Your task to perform on an android device: Open calendar and show me the second week of next month Image 0: 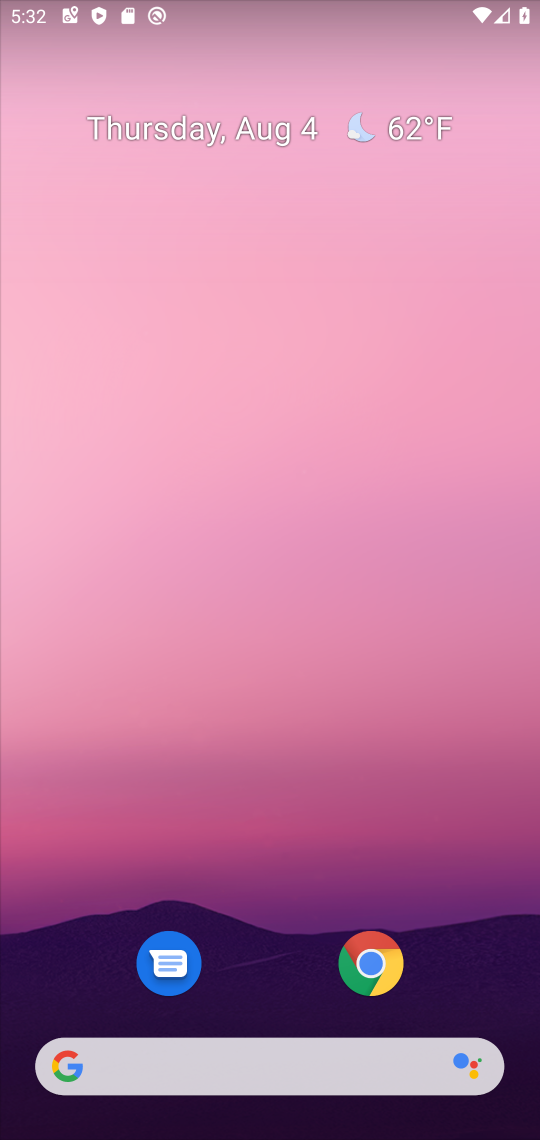
Step 0: drag from (259, 949) to (227, 114)
Your task to perform on an android device: Open calendar and show me the second week of next month Image 1: 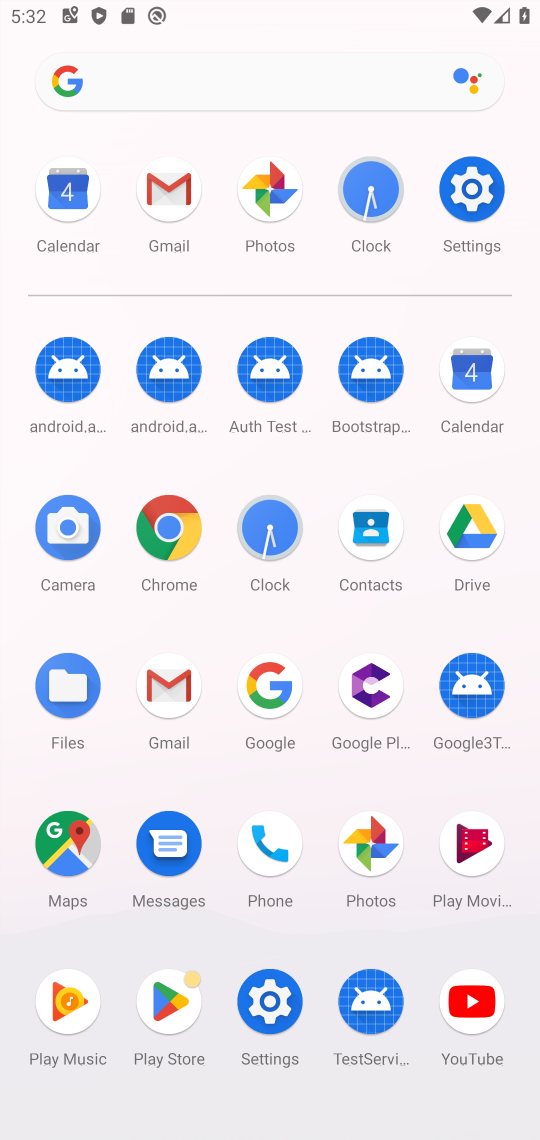
Step 1: click (472, 375)
Your task to perform on an android device: Open calendar and show me the second week of next month Image 2: 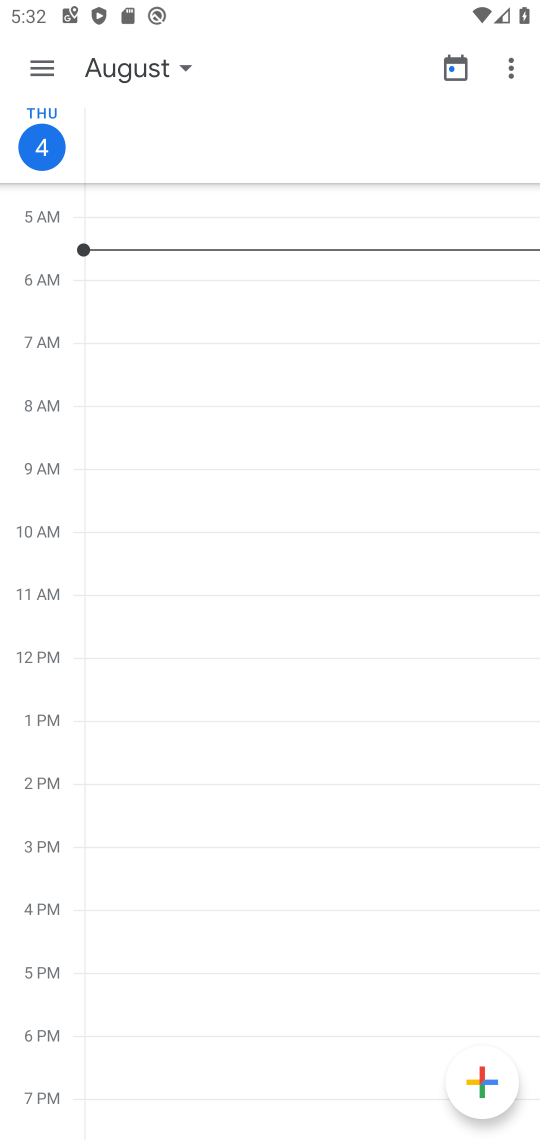
Step 2: click (42, 57)
Your task to perform on an android device: Open calendar and show me the second week of next month Image 3: 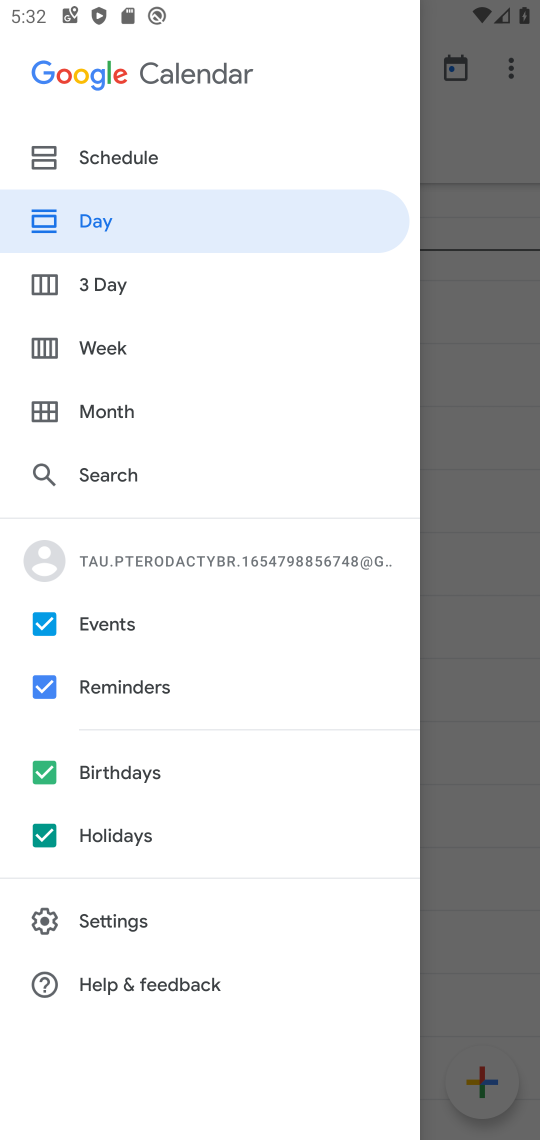
Step 3: click (106, 342)
Your task to perform on an android device: Open calendar and show me the second week of next month Image 4: 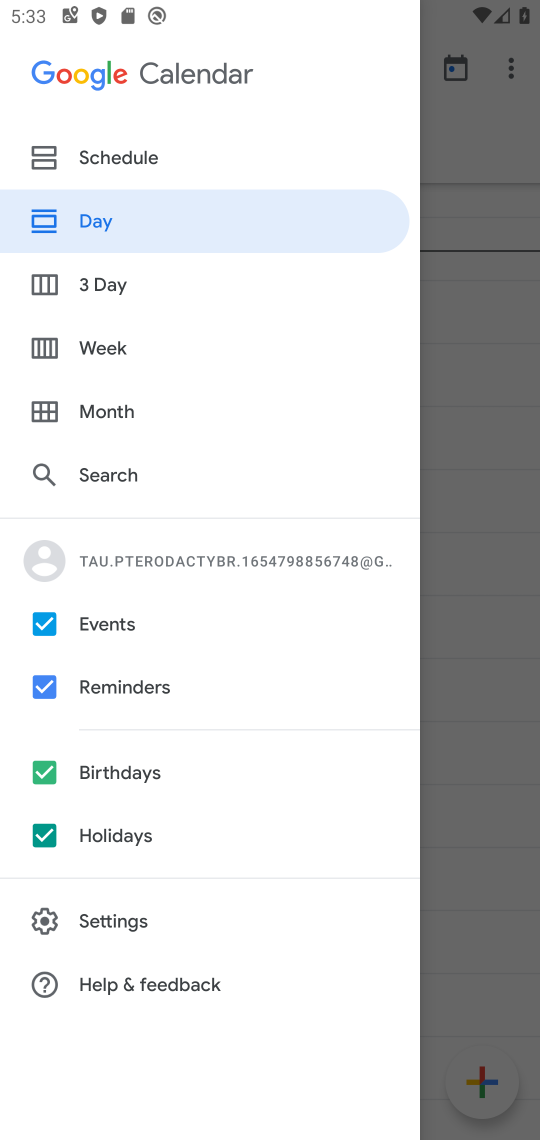
Step 4: click (101, 343)
Your task to perform on an android device: Open calendar and show me the second week of next month Image 5: 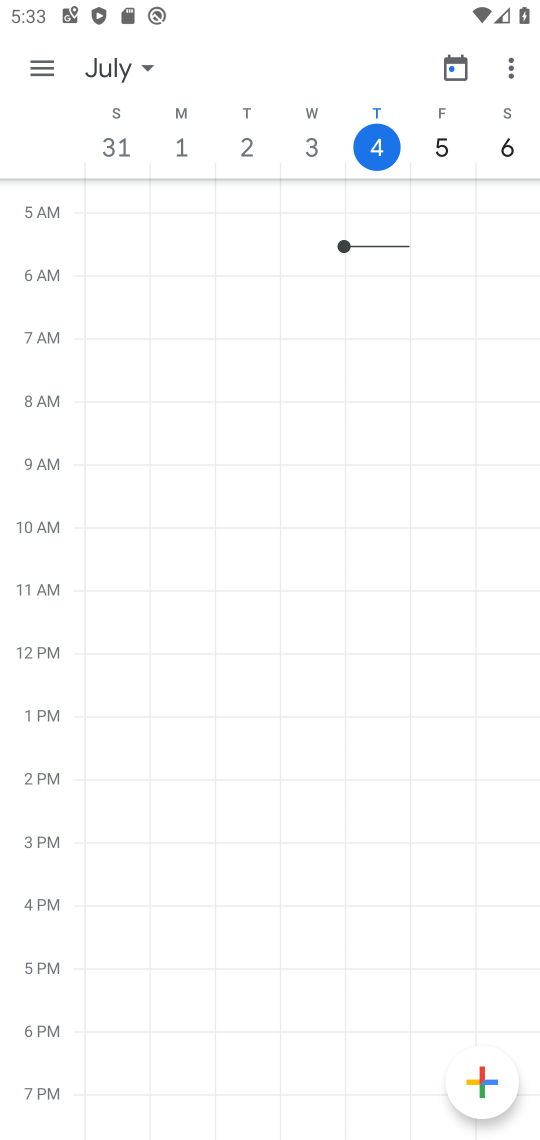
Step 5: click (150, 66)
Your task to perform on an android device: Open calendar and show me the second week of next month Image 6: 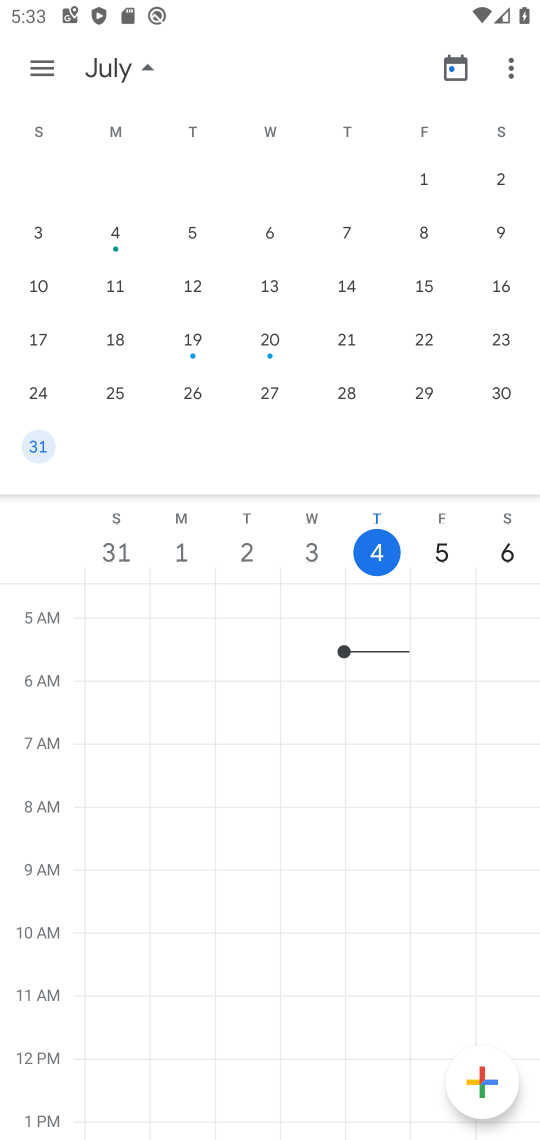
Step 6: drag from (499, 315) to (26, 270)
Your task to perform on an android device: Open calendar and show me the second week of next month Image 7: 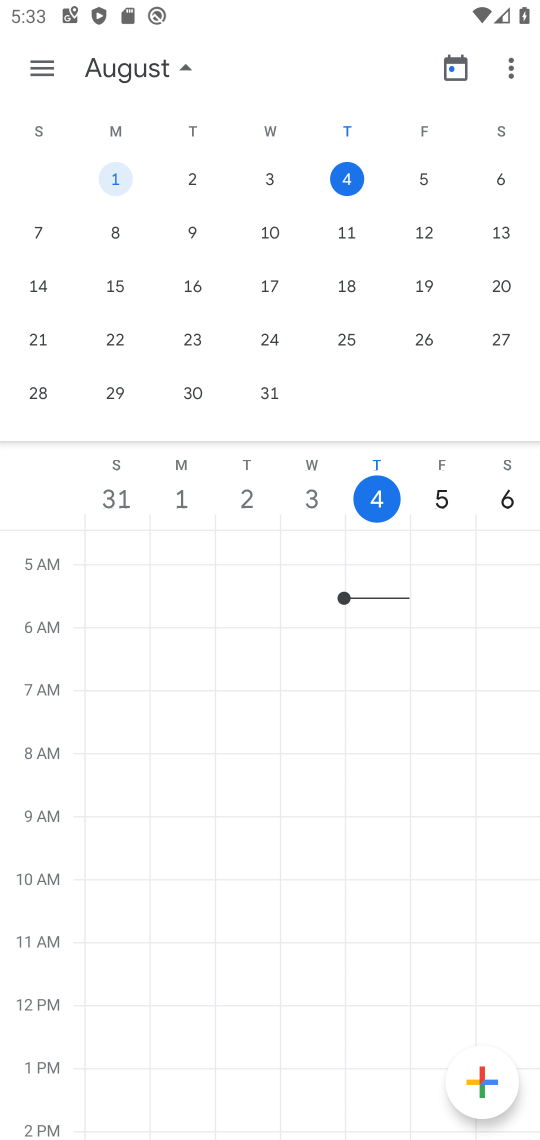
Step 7: drag from (454, 283) to (52, 174)
Your task to perform on an android device: Open calendar and show me the second week of next month Image 8: 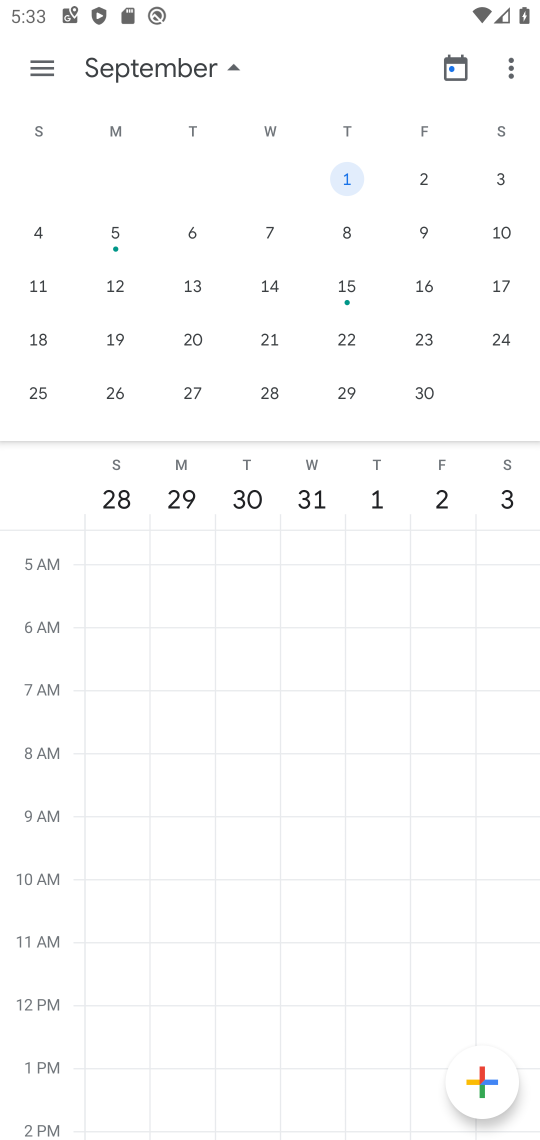
Step 8: click (271, 223)
Your task to perform on an android device: Open calendar and show me the second week of next month Image 9: 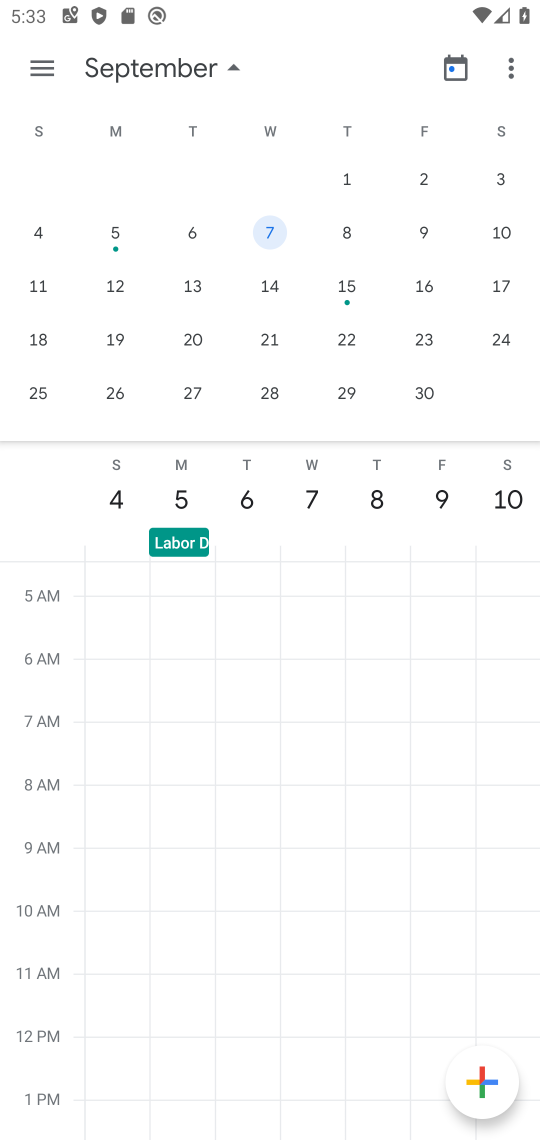
Step 9: task complete